Your task to perform on an android device: Is it going to rain tomorrow? Image 0: 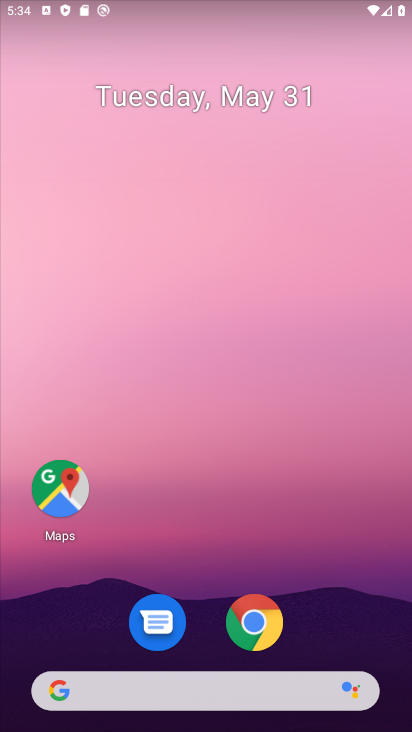
Step 0: drag from (228, 584) to (276, 0)
Your task to perform on an android device: Is it going to rain tomorrow? Image 1: 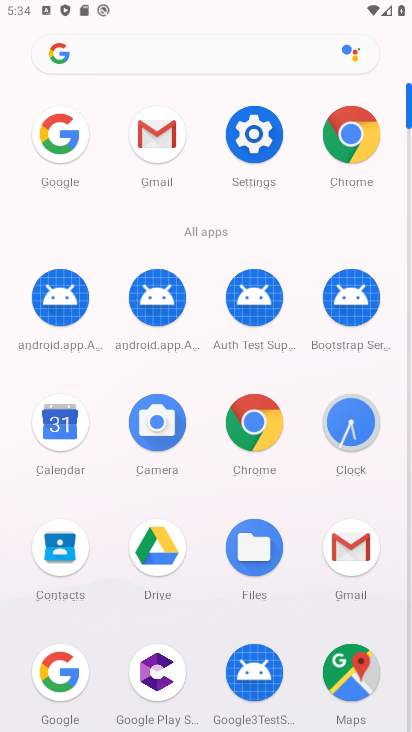
Step 1: click (248, 427)
Your task to perform on an android device: Is it going to rain tomorrow? Image 2: 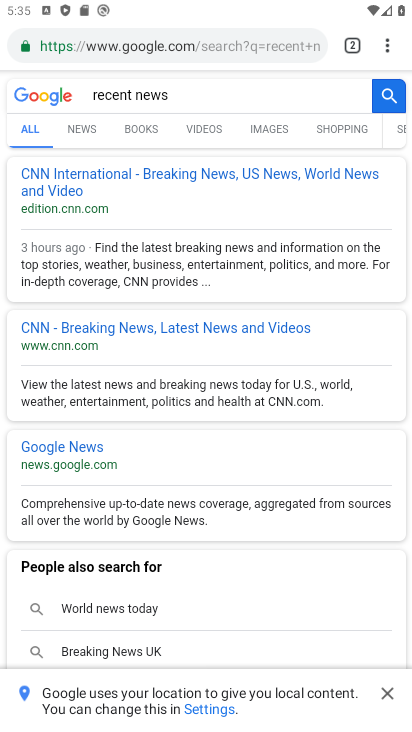
Step 2: press home button
Your task to perform on an android device: Is it going to rain tomorrow? Image 3: 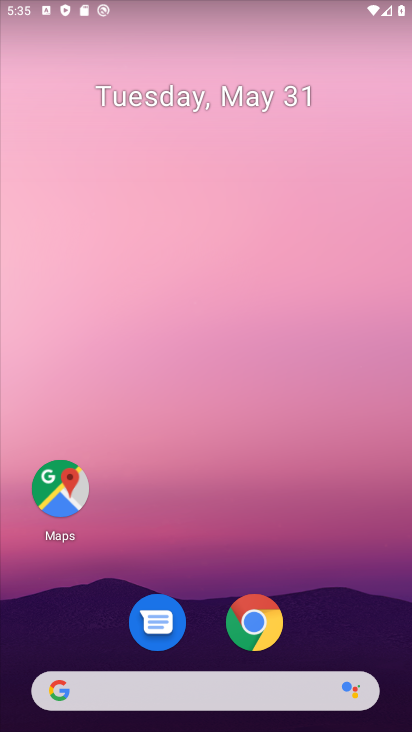
Step 3: drag from (47, 175) to (397, 165)
Your task to perform on an android device: Is it going to rain tomorrow? Image 4: 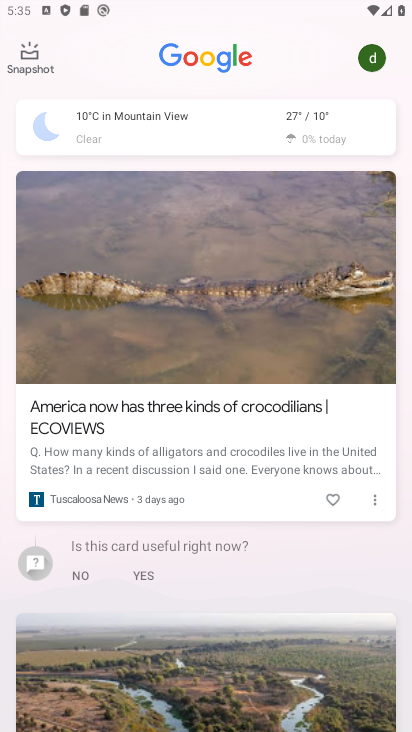
Step 4: click (159, 115)
Your task to perform on an android device: Is it going to rain tomorrow? Image 5: 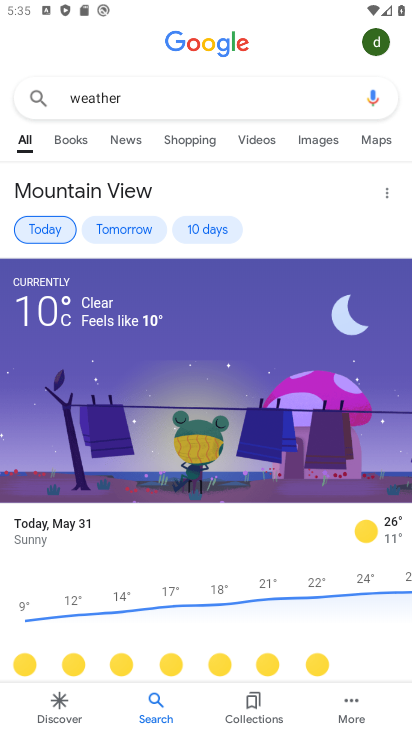
Step 5: click (233, 228)
Your task to perform on an android device: Is it going to rain tomorrow? Image 6: 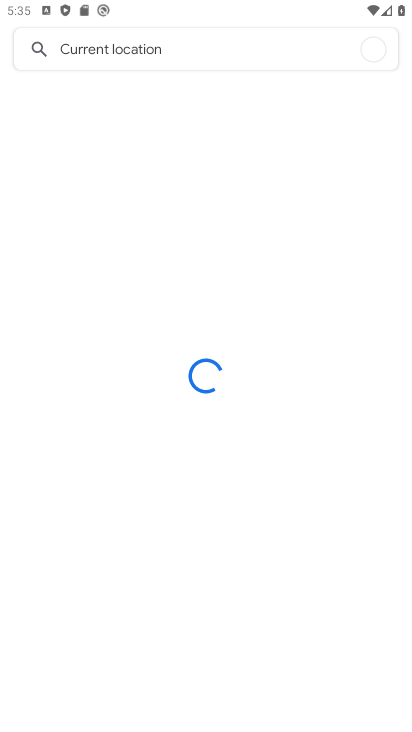
Step 6: click (132, 227)
Your task to perform on an android device: Is it going to rain tomorrow? Image 7: 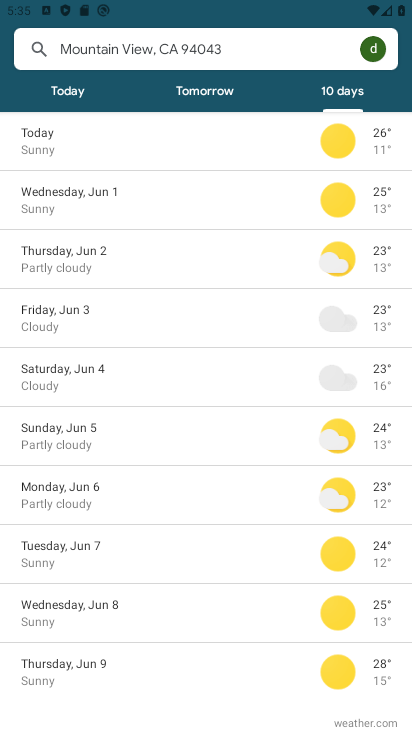
Step 7: task complete